Your task to perform on an android device: set the stopwatch Image 0: 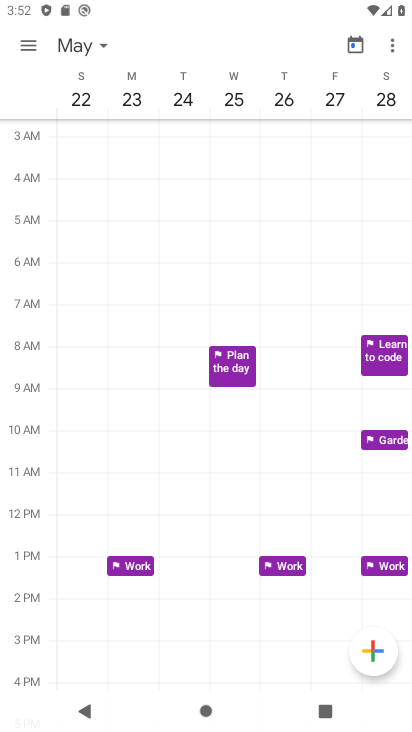
Step 0: press home button
Your task to perform on an android device: set the stopwatch Image 1: 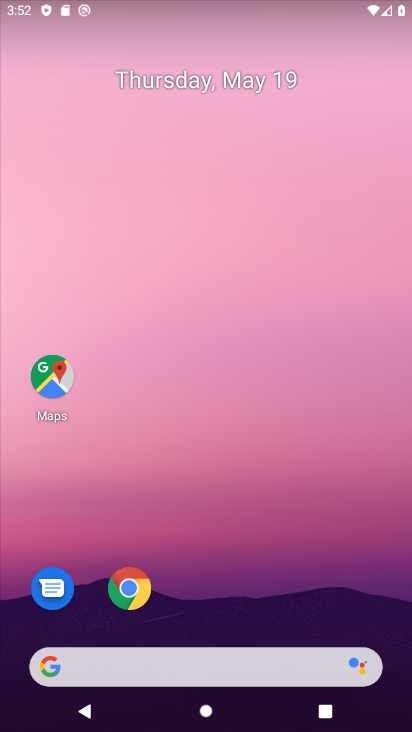
Step 1: drag from (221, 614) to (238, 187)
Your task to perform on an android device: set the stopwatch Image 2: 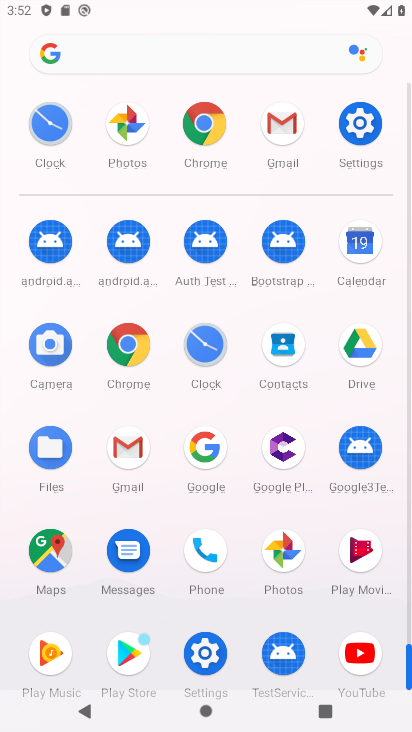
Step 2: click (215, 351)
Your task to perform on an android device: set the stopwatch Image 3: 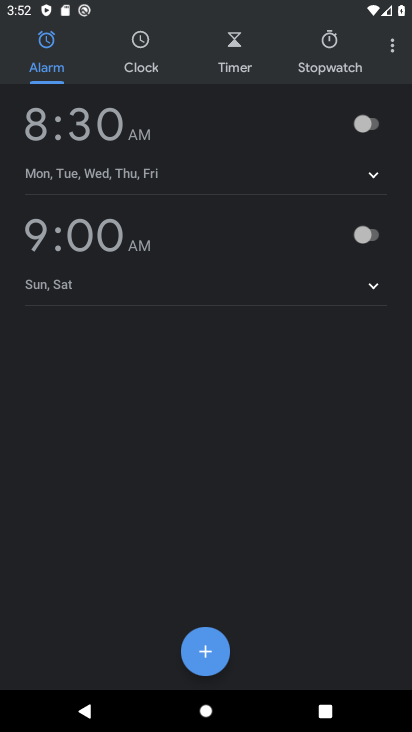
Step 3: click (322, 59)
Your task to perform on an android device: set the stopwatch Image 4: 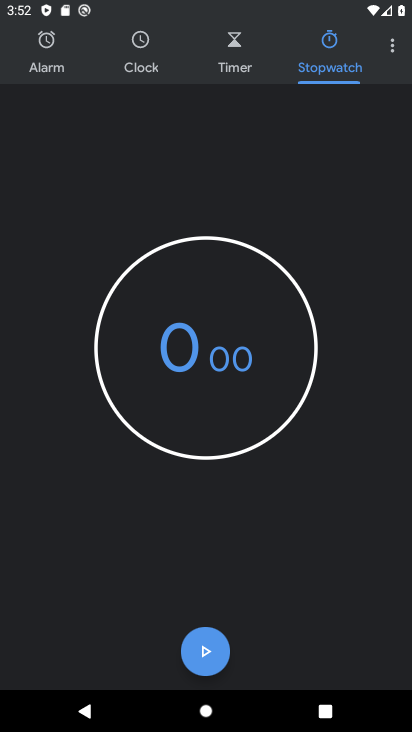
Step 4: click (213, 647)
Your task to perform on an android device: set the stopwatch Image 5: 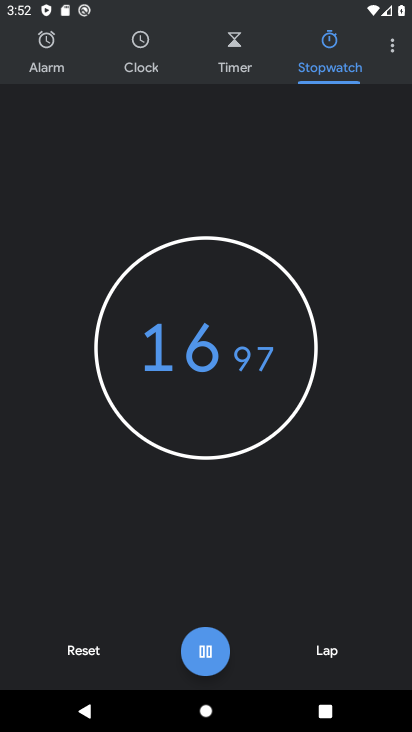
Step 5: task complete